Your task to perform on an android device: add a contact in the contacts app Image 0: 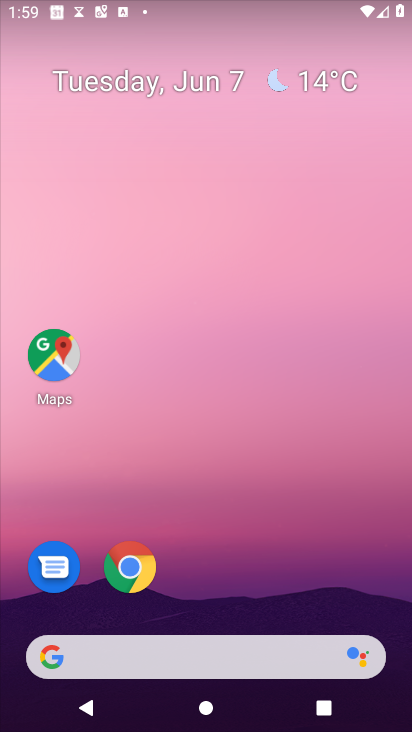
Step 0: drag from (266, 647) to (313, 14)
Your task to perform on an android device: add a contact in the contacts app Image 1: 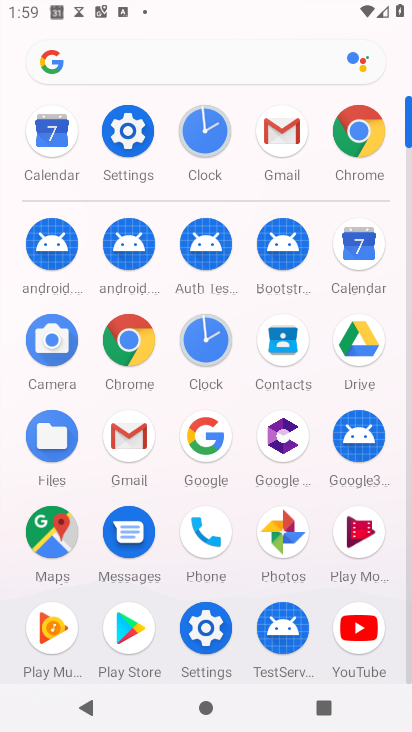
Step 1: click (292, 347)
Your task to perform on an android device: add a contact in the contacts app Image 2: 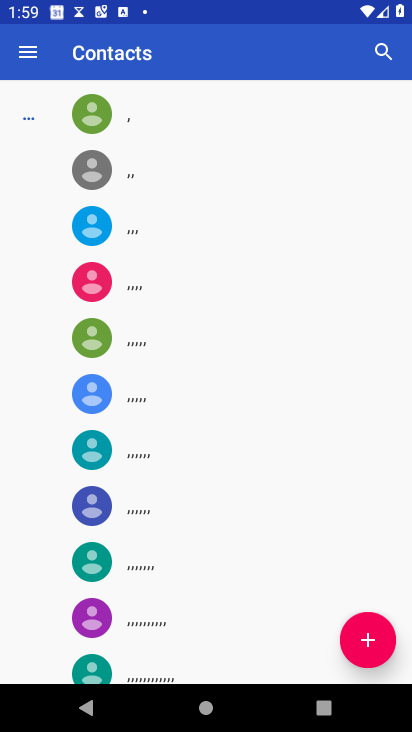
Step 2: click (362, 637)
Your task to perform on an android device: add a contact in the contacts app Image 3: 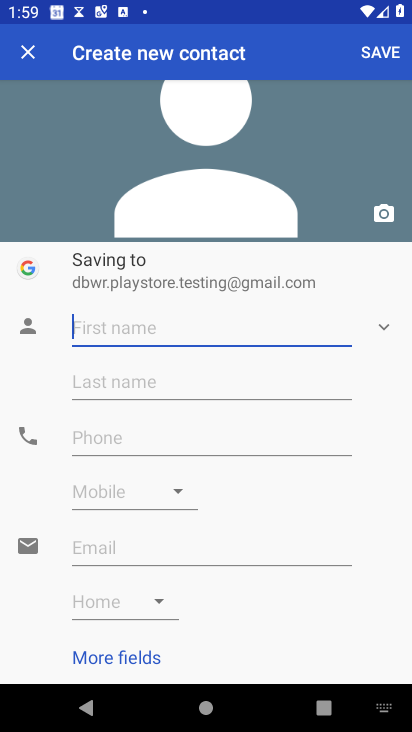
Step 3: type "ngffdhgd"
Your task to perform on an android device: add a contact in the contacts app Image 4: 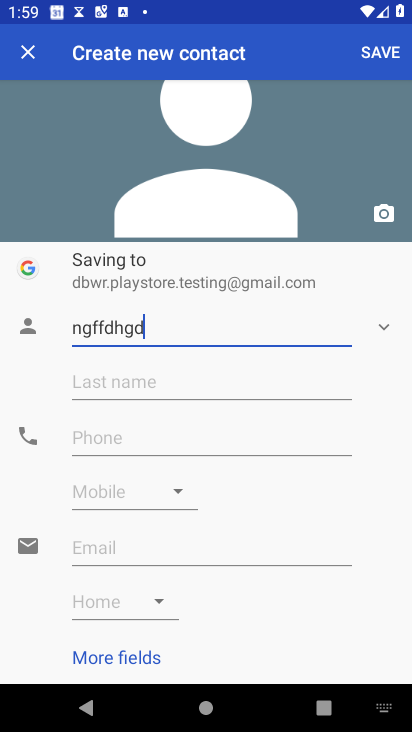
Step 4: click (251, 428)
Your task to perform on an android device: add a contact in the contacts app Image 5: 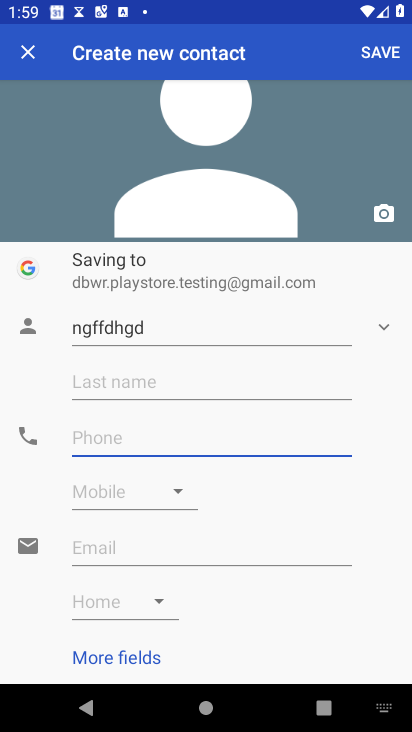
Step 5: type "98765677877"
Your task to perform on an android device: add a contact in the contacts app Image 6: 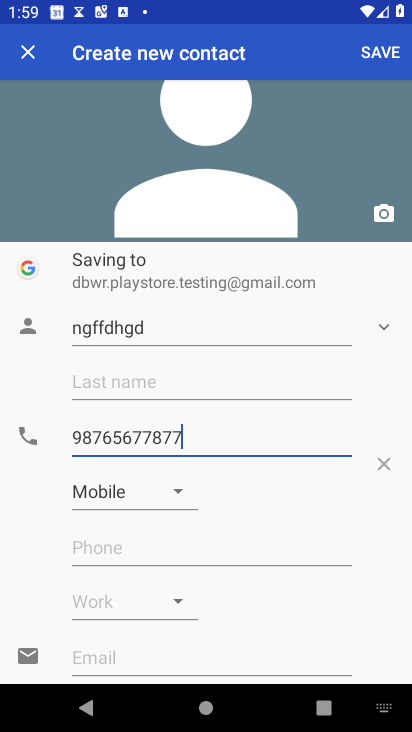
Step 6: click (365, 53)
Your task to perform on an android device: add a contact in the contacts app Image 7: 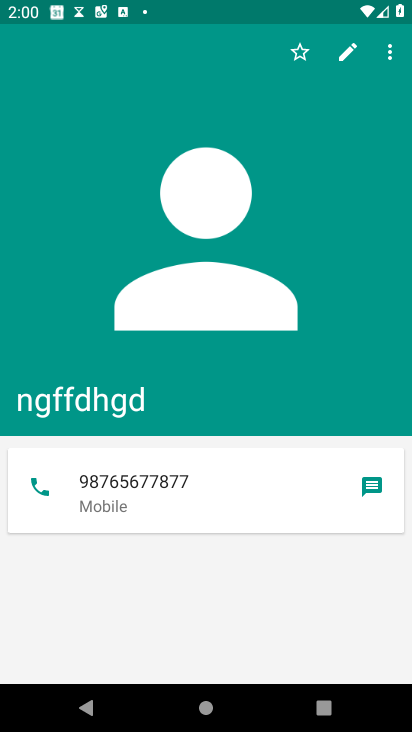
Step 7: task complete